Your task to perform on an android device: allow cookies in the chrome app Image 0: 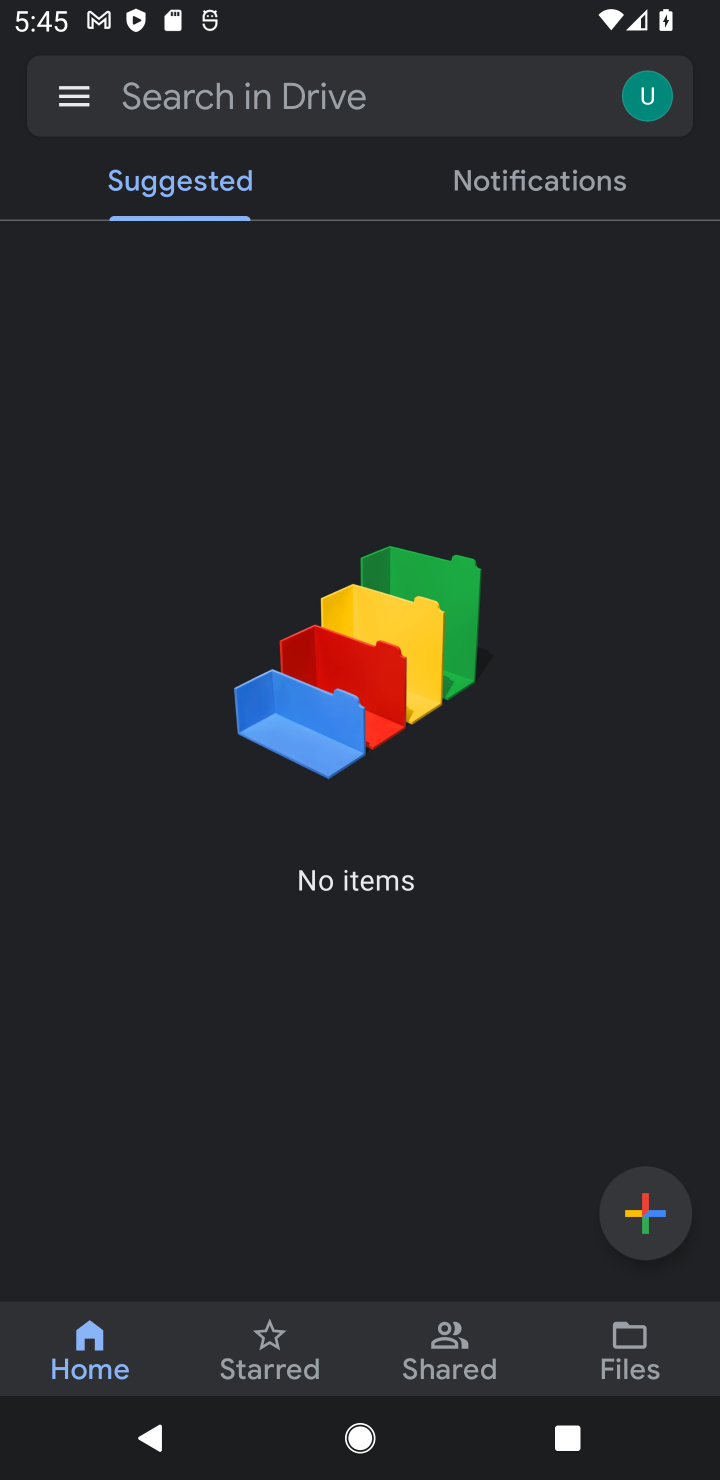
Step 0: task complete